Your task to perform on an android device: Open Maps and search for coffee Image 0: 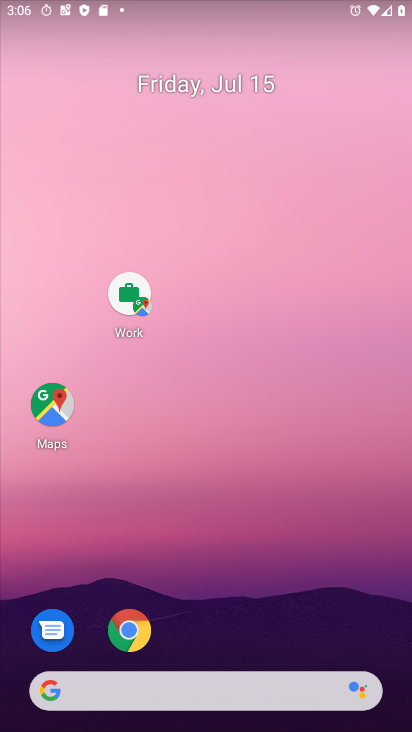
Step 0: click (62, 418)
Your task to perform on an android device: Open Maps and search for coffee Image 1: 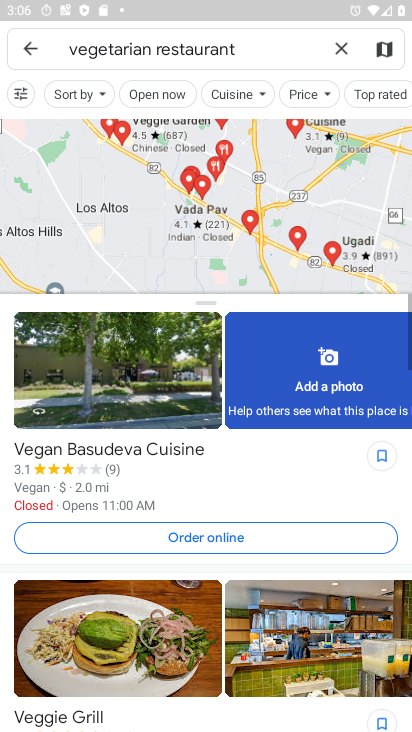
Step 1: click (336, 47)
Your task to perform on an android device: Open Maps and search for coffee Image 2: 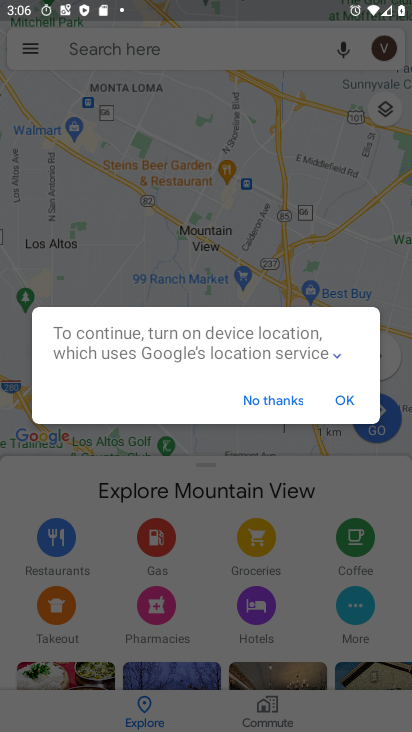
Step 2: click (338, 394)
Your task to perform on an android device: Open Maps and search for coffee Image 3: 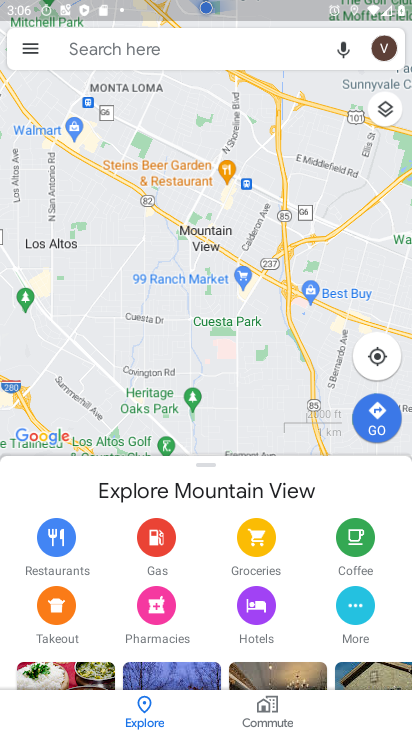
Step 3: click (240, 48)
Your task to perform on an android device: Open Maps and search for coffee Image 4: 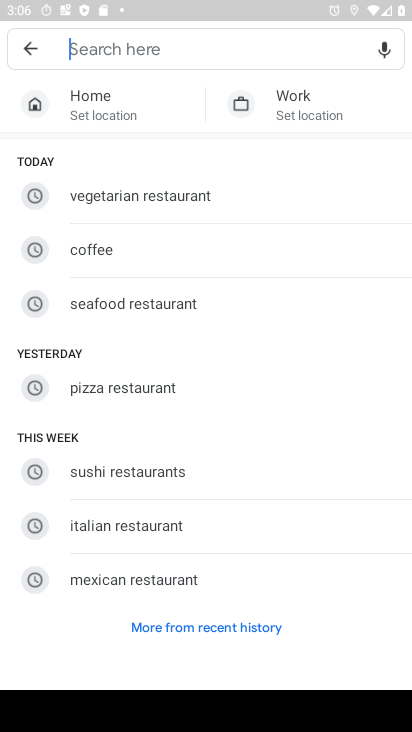
Step 4: type "coffee"
Your task to perform on an android device: Open Maps and search for coffee Image 5: 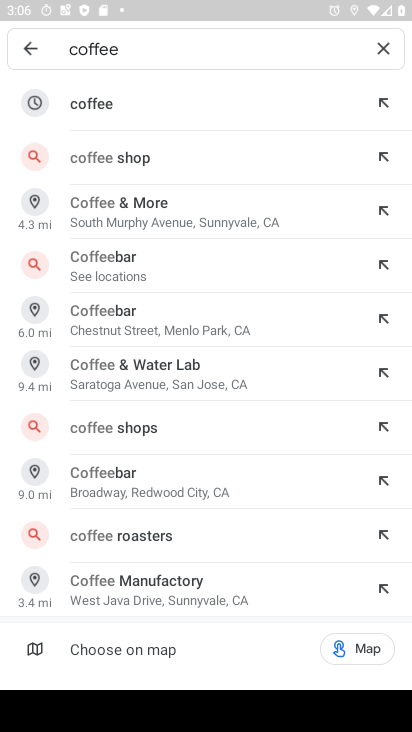
Step 5: click (124, 112)
Your task to perform on an android device: Open Maps and search for coffee Image 6: 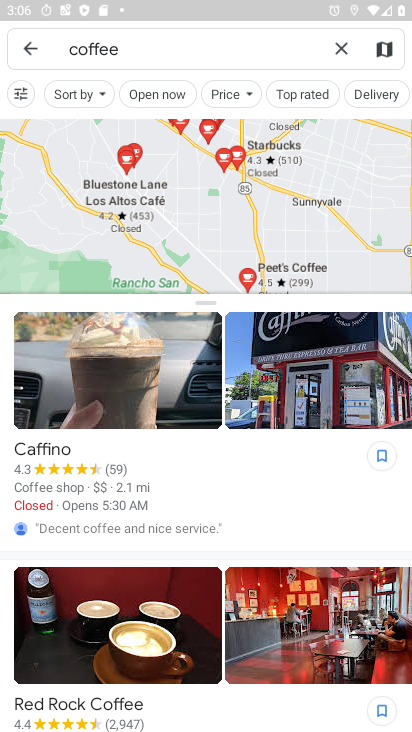
Step 6: task complete